Your task to perform on an android device: open sync settings in chrome Image 0: 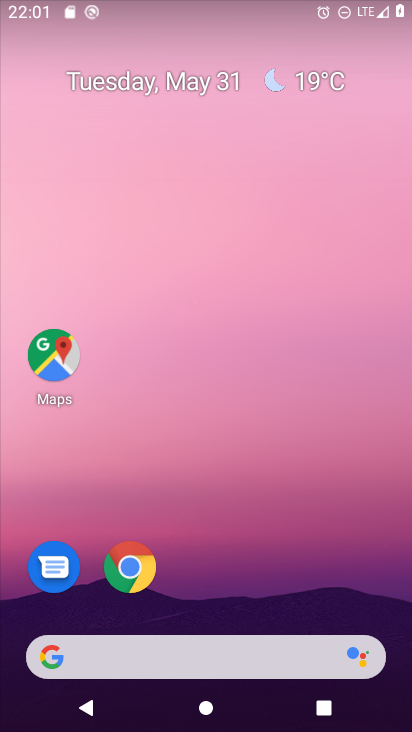
Step 0: click (135, 570)
Your task to perform on an android device: open sync settings in chrome Image 1: 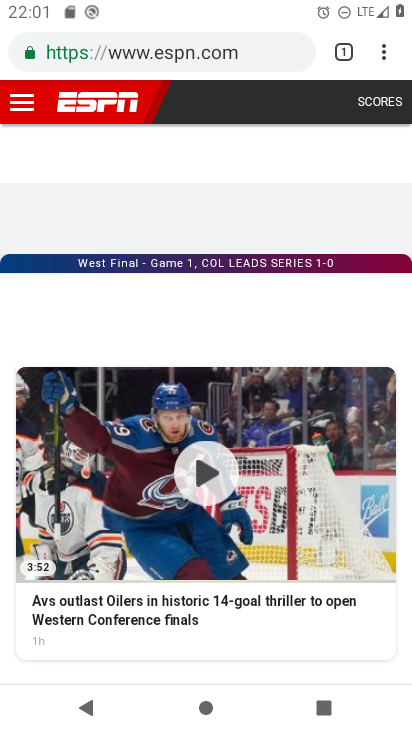
Step 1: click (390, 56)
Your task to perform on an android device: open sync settings in chrome Image 2: 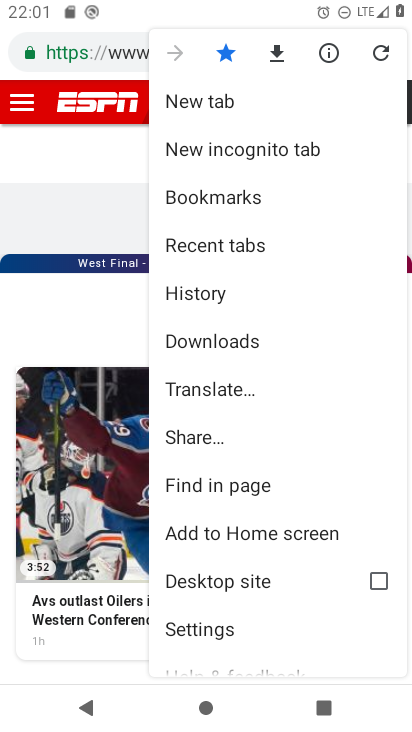
Step 2: click (206, 625)
Your task to perform on an android device: open sync settings in chrome Image 3: 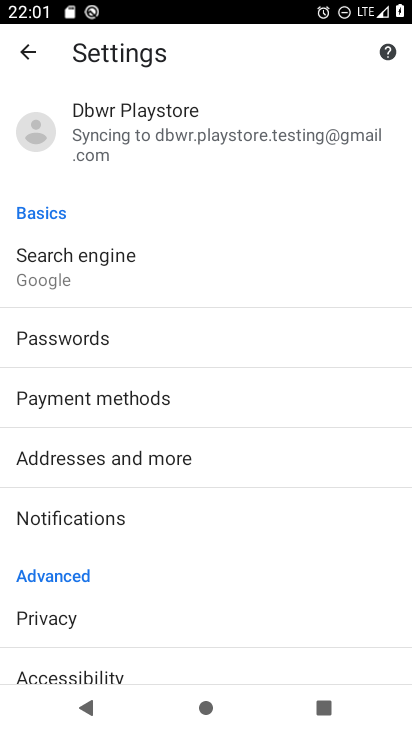
Step 3: click (169, 115)
Your task to perform on an android device: open sync settings in chrome Image 4: 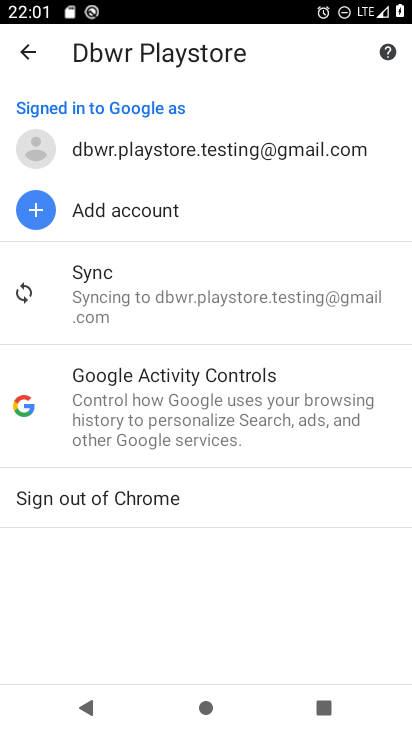
Step 4: click (79, 328)
Your task to perform on an android device: open sync settings in chrome Image 5: 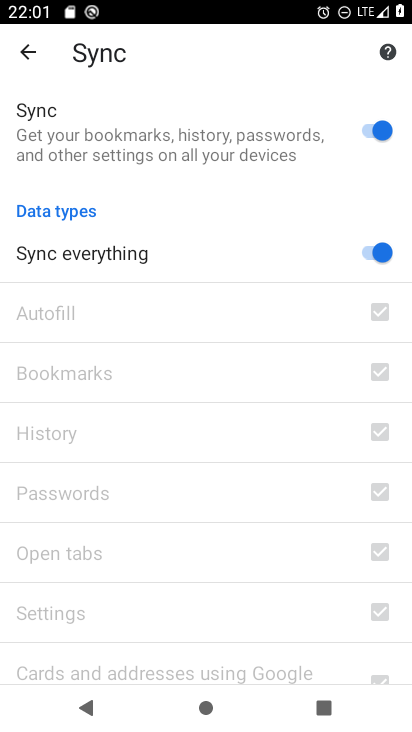
Step 5: task complete